Your task to perform on an android device: open app "Walmart Shopping & Grocery" Image 0: 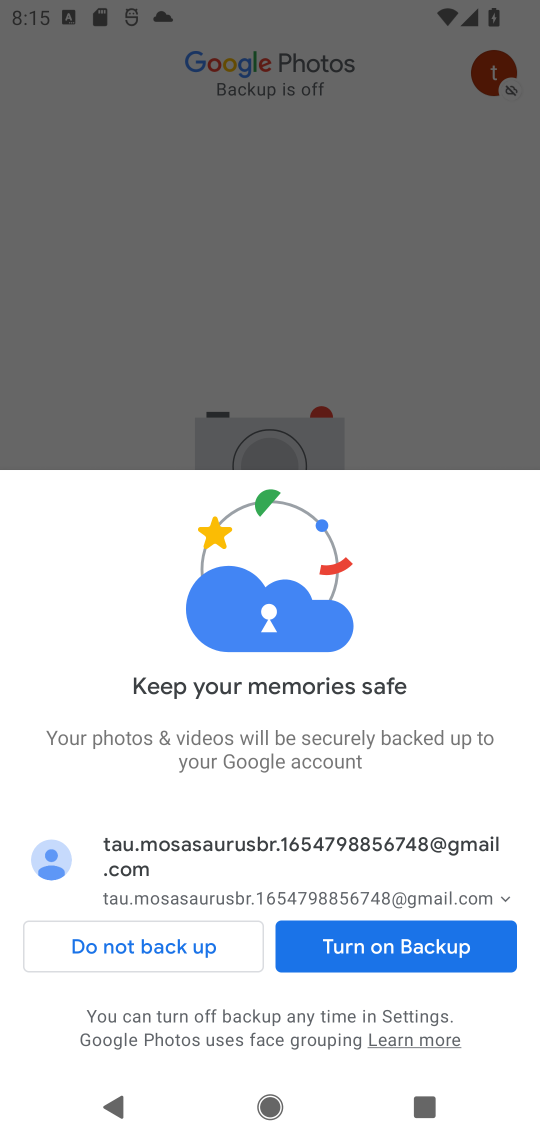
Step 0: press home button
Your task to perform on an android device: open app "Walmart Shopping & Grocery" Image 1: 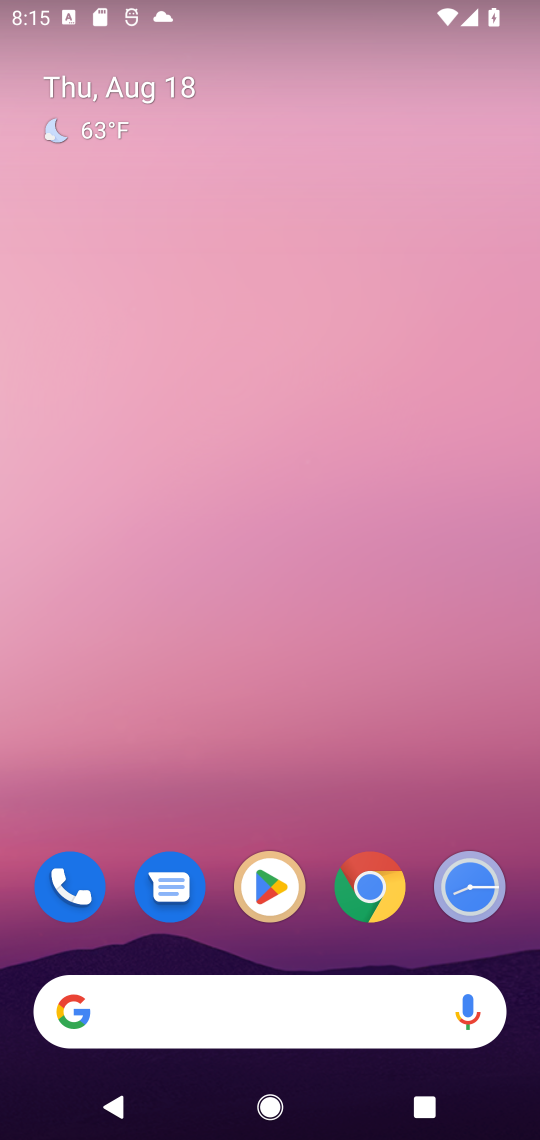
Step 1: click (271, 890)
Your task to perform on an android device: open app "Walmart Shopping & Grocery" Image 2: 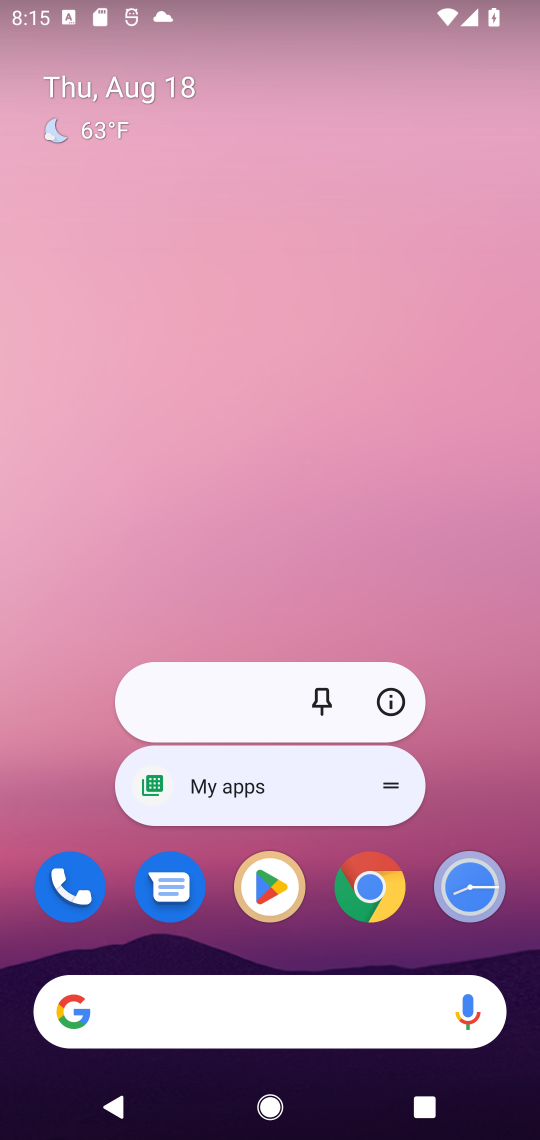
Step 2: click (269, 910)
Your task to perform on an android device: open app "Walmart Shopping & Grocery" Image 3: 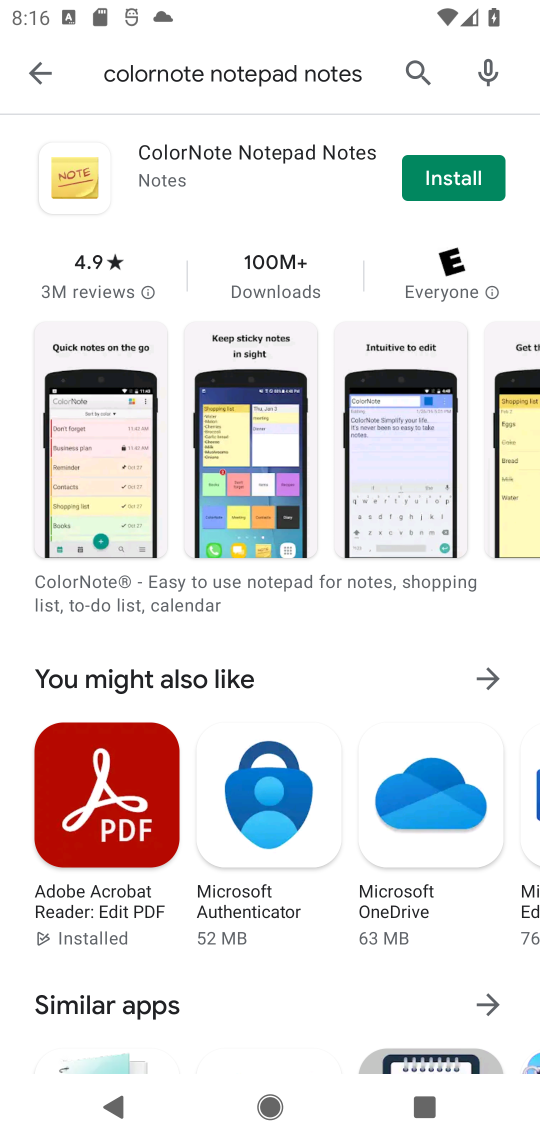
Step 3: click (410, 76)
Your task to perform on an android device: open app "Walmart Shopping & Grocery" Image 4: 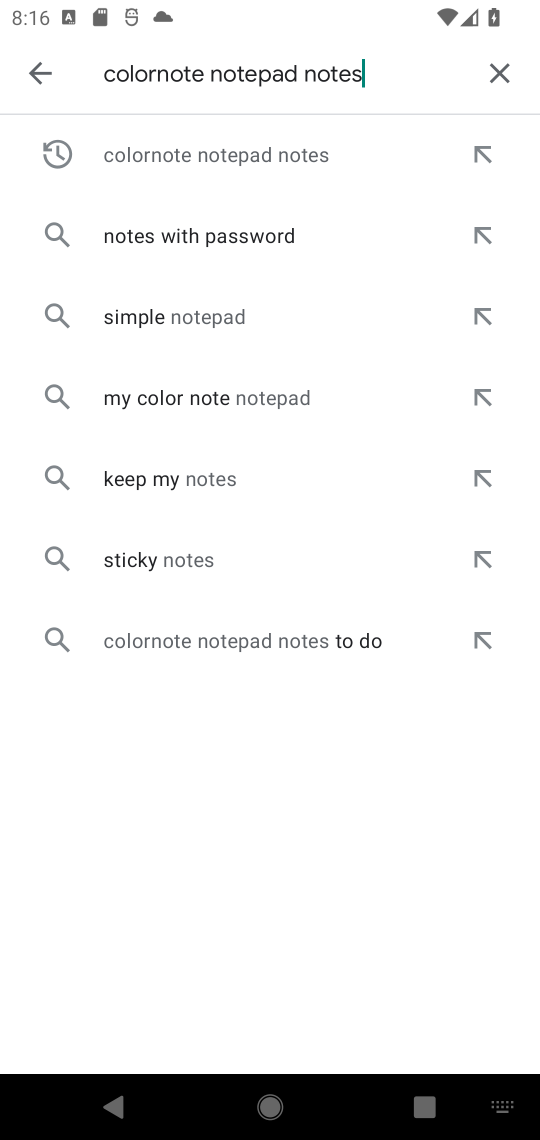
Step 4: click (493, 67)
Your task to perform on an android device: open app "Walmart Shopping & Grocery" Image 5: 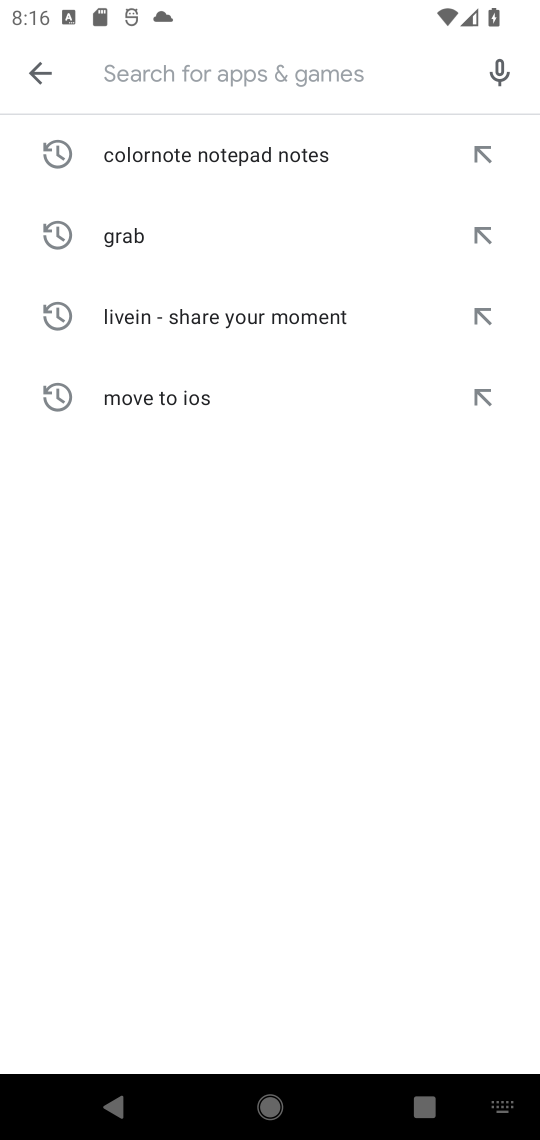
Step 5: type "Walmart Shopping & Grocery"
Your task to perform on an android device: open app "Walmart Shopping & Grocery" Image 6: 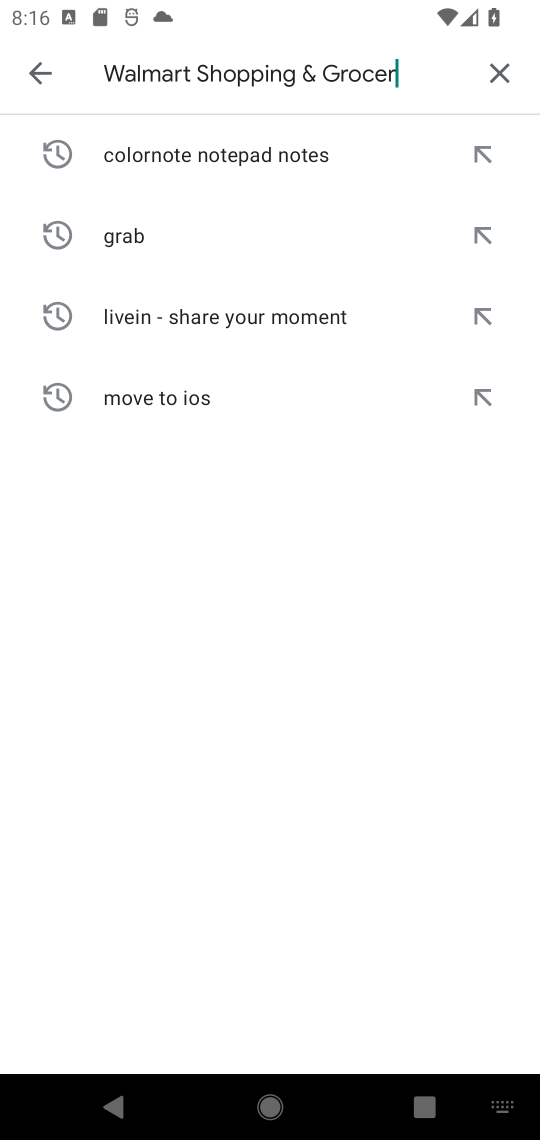
Step 6: type ""
Your task to perform on an android device: open app "Walmart Shopping & Grocery" Image 7: 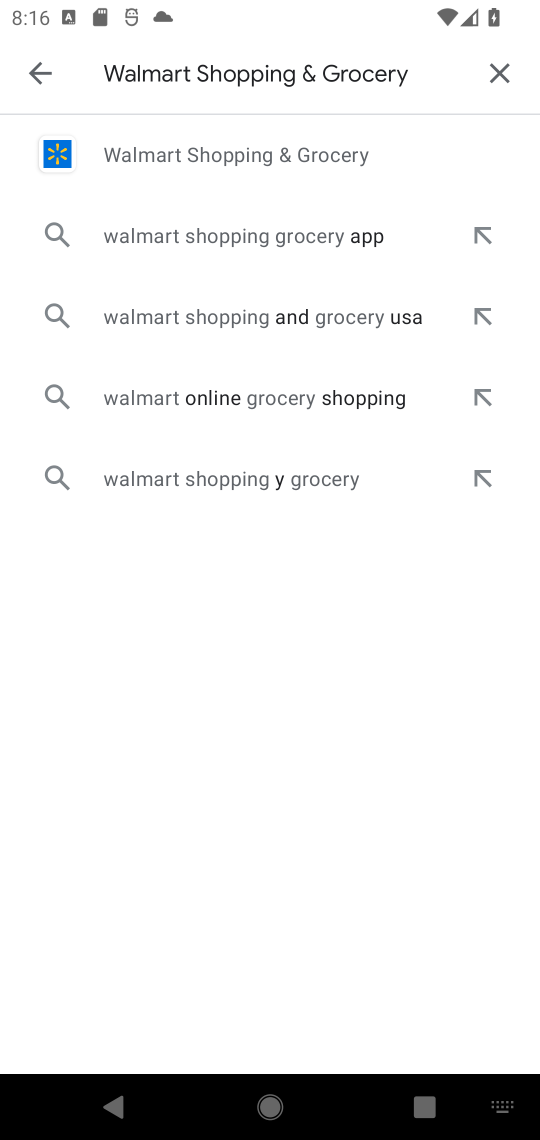
Step 7: click (227, 155)
Your task to perform on an android device: open app "Walmart Shopping & Grocery" Image 8: 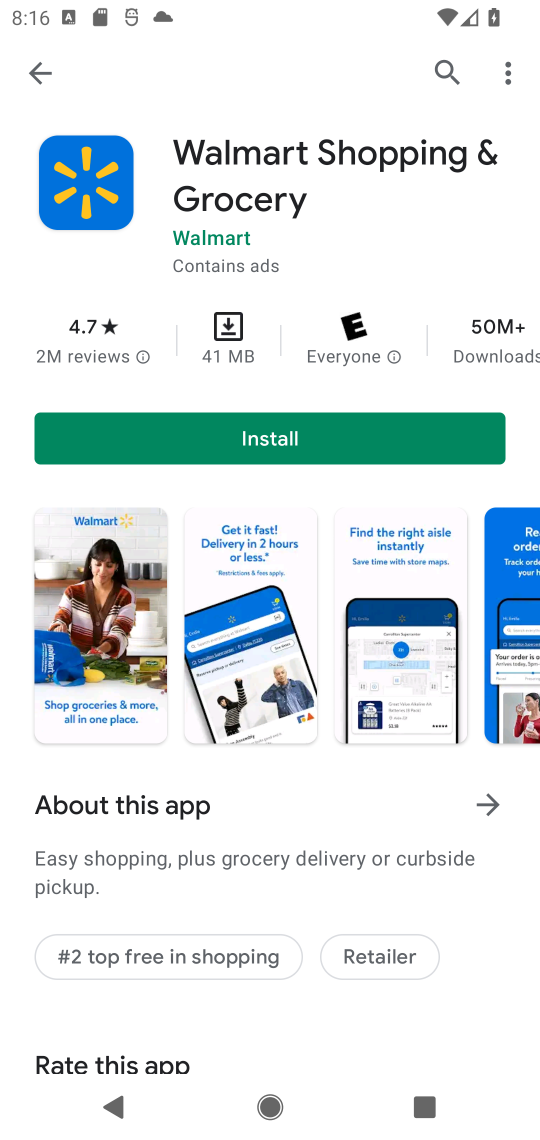
Step 8: task complete